Your task to perform on an android device: turn off improve location accuracy Image 0: 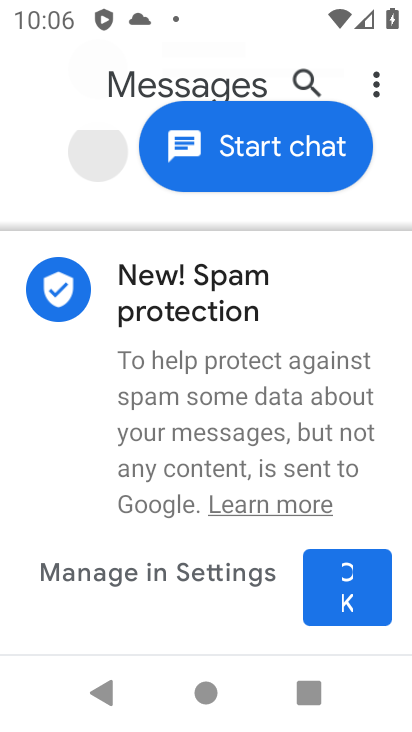
Step 0: press home button
Your task to perform on an android device: turn off improve location accuracy Image 1: 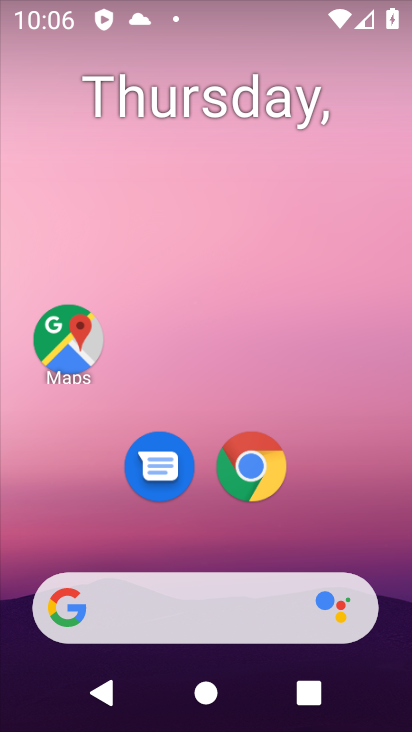
Step 1: drag from (233, 543) to (250, 164)
Your task to perform on an android device: turn off improve location accuracy Image 2: 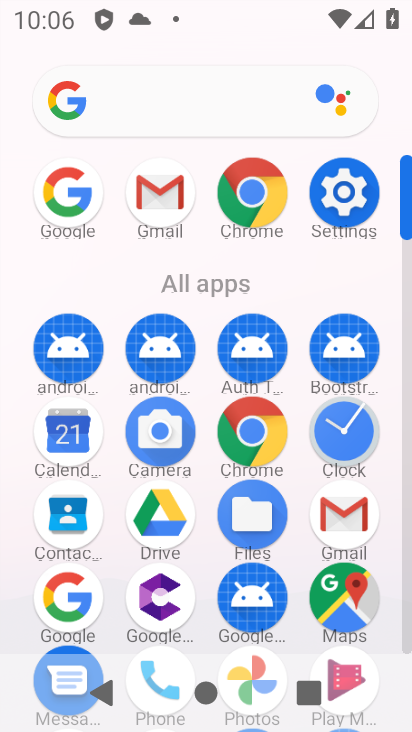
Step 2: click (341, 183)
Your task to perform on an android device: turn off improve location accuracy Image 3: 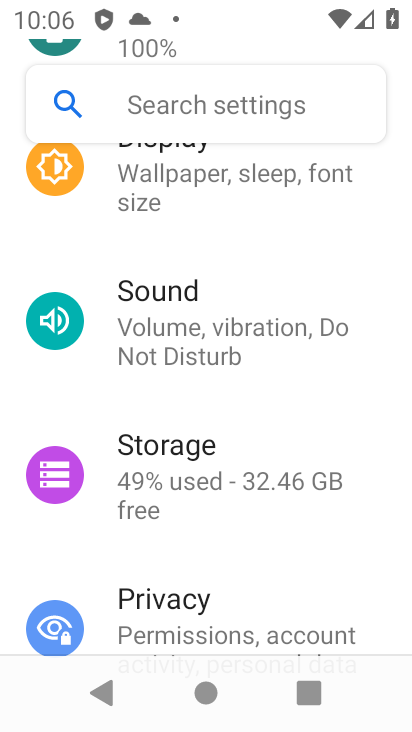
Step 3: drag from (273, 477) to (248, 201)
Your task to perform on an android device: turn off improve location accuracy Image 4: 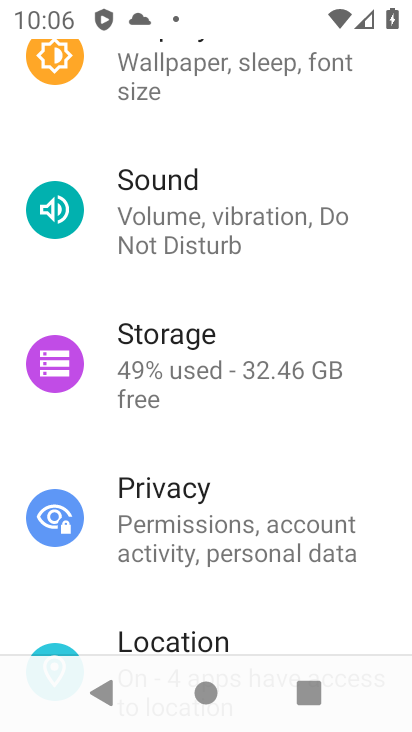
Step 4: click (181, 633)
Your task to perform on an android device: turn off improve location accuracy Image 5: 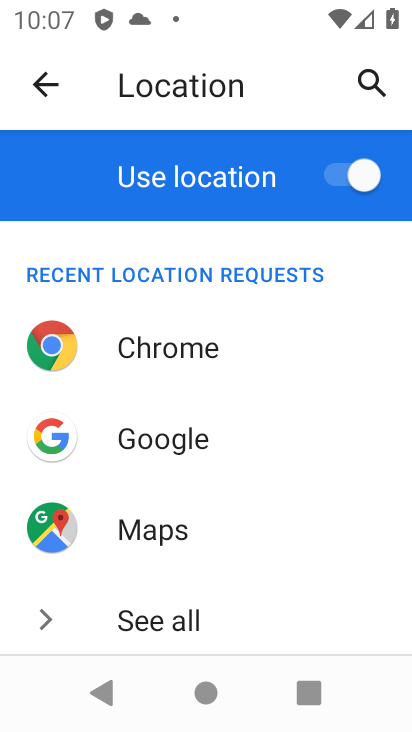
Step 5: drag from (252, 546) to (226, 56)
Your task to perform on an android device: turn off improve location accuracy Image 6: 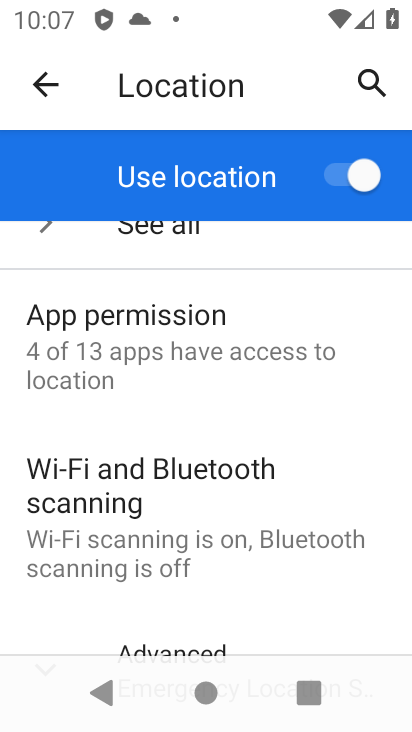
Step 6: drag from (178, 464) to (179, 147)
Your task to perform on an android device: turn off improve location accuracy Image 7: 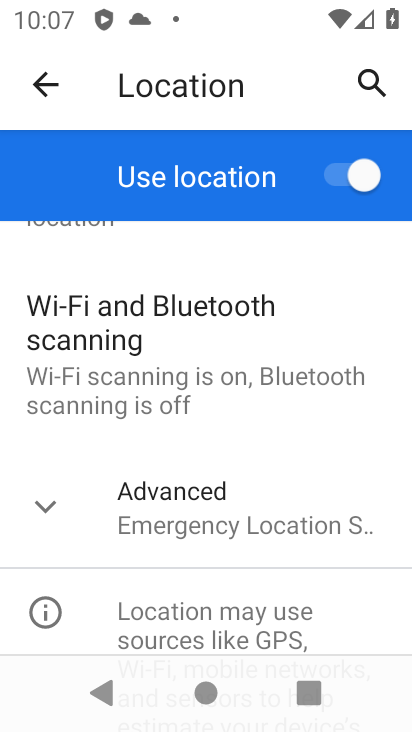
Step 7: click (182, 482)
Your task to perform on an android device: turn off improve location accuracy Image 8: 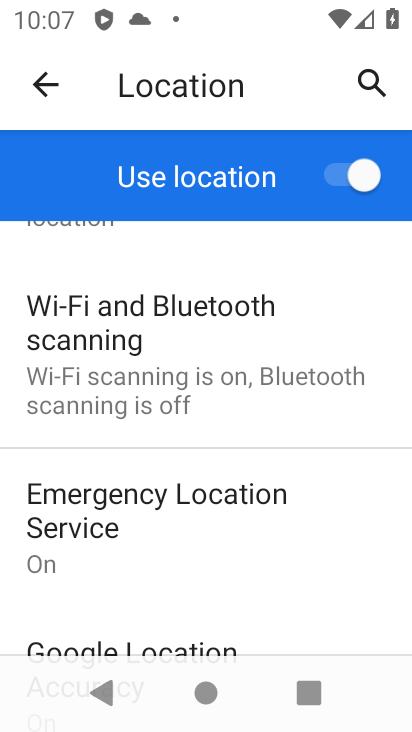
Step 8: drag from (232, 555) to (250, 230)
Your task to perform on an android device: turn off improve location accuracy Image 9: 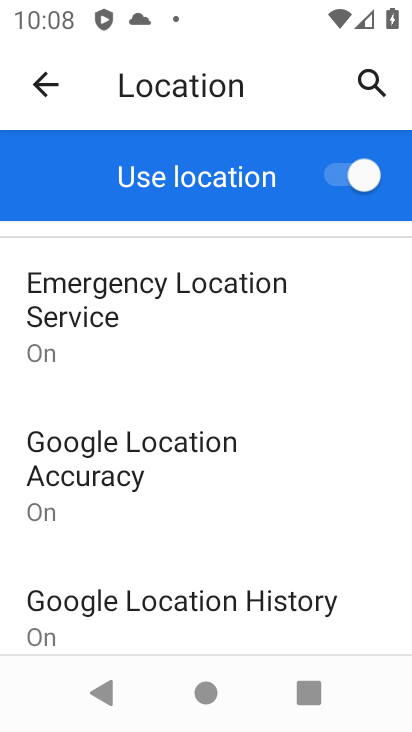
Step 9: click (202, 431)
Your task to perform on an android device: turn off improve location accuracy Image 10: 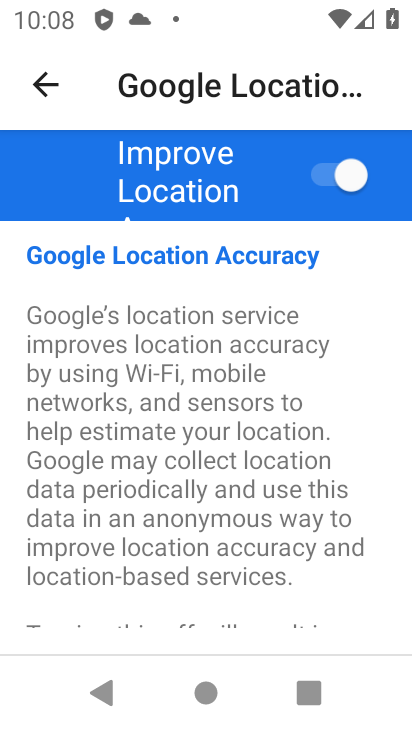
Step 10: click (352, 184)
Your task to perform on an android device: turn off improve location accuracy Image 11: 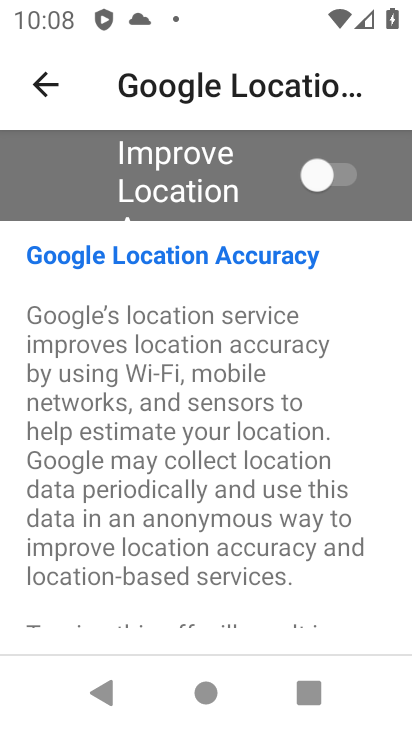
Step 11: task complete